Your task to perform on an android device: change text size in settings app Image 0: 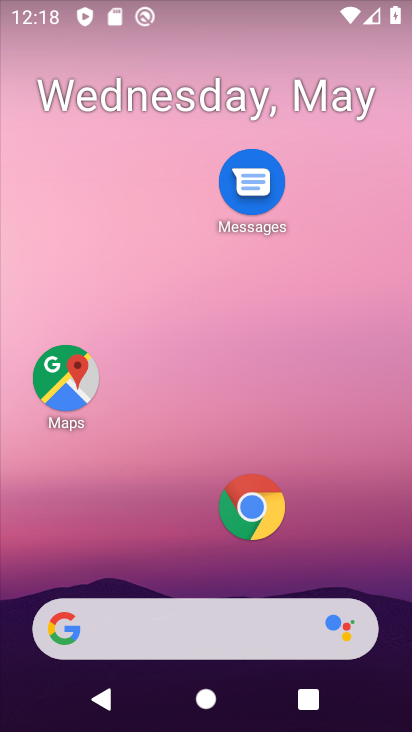
Step 0: drag from (143, 592) to (221, 101)
Your task to perform on an android device: change text size in settings app Image 1: 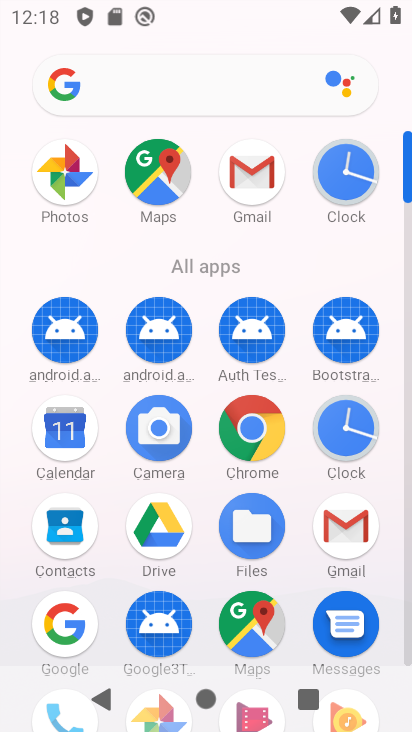
Step 1: drag from (169, 648) to (234, 373)
Your task to perform on an android device: change text size in settings app Image 2: 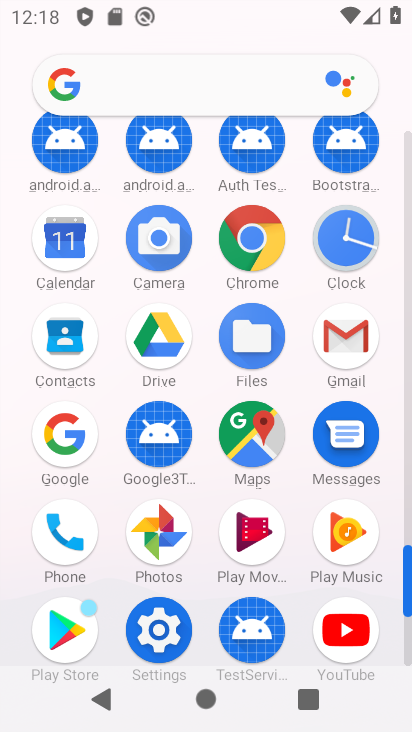
Step 2: click (168, 629)
Your task to perform on an android device: change text size in settings app Image 3: 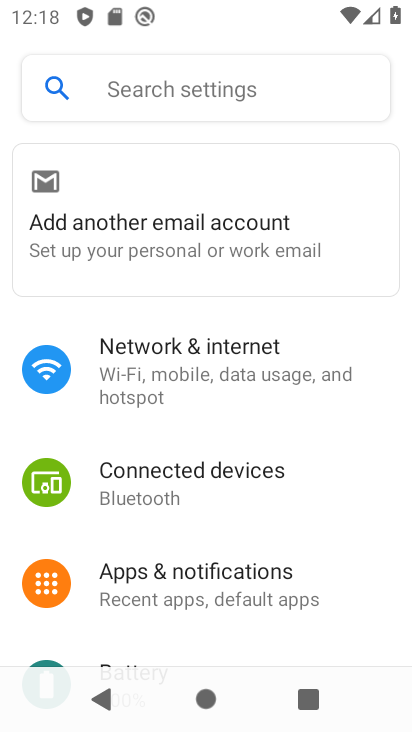
Step 3: drag from (189, 628) to (254, 354)
Your task to perform on an android device: change text size in settings app Image 4: 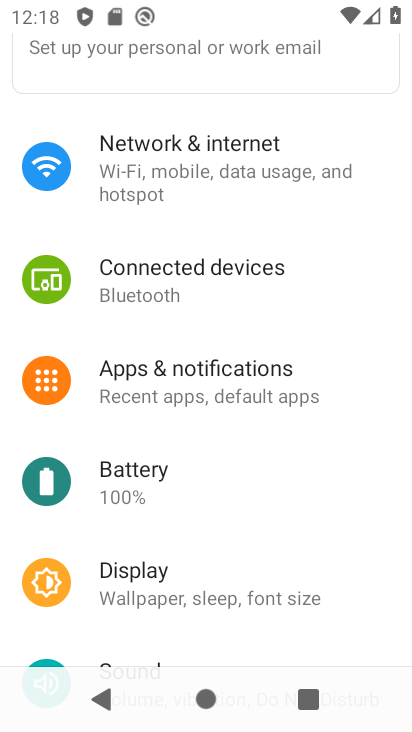
Step 4: click (165, 581)
Your task to perform on an android device: change text size in settings app Image 5: 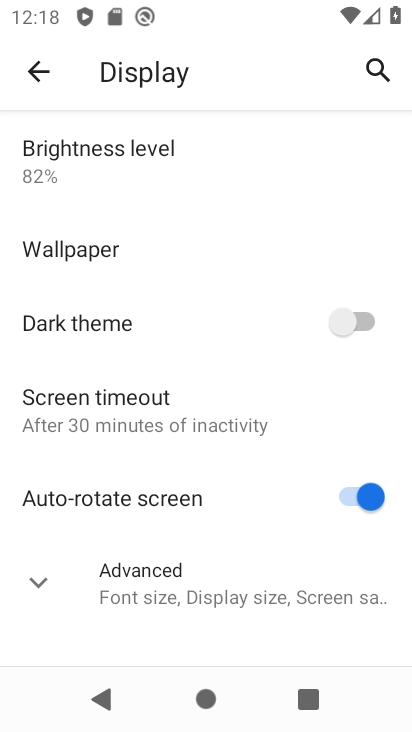
Step 5: click (166, 602)
Your task to perform on an android device: change text size in settings app Image 6: 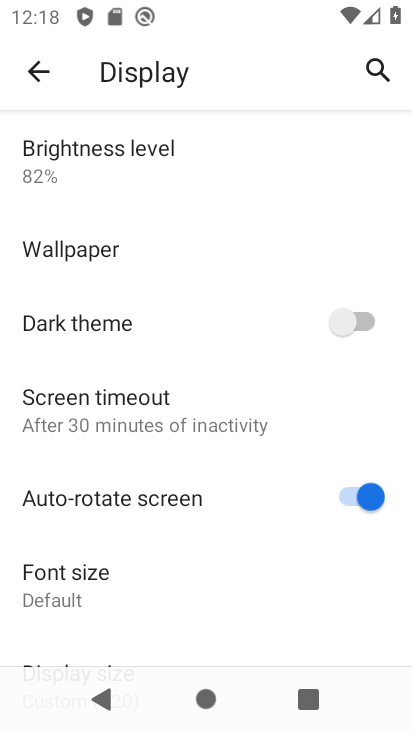
Step 6: click (157, 580)
Your task to perform on an android device: change text size in settings app Image 7: 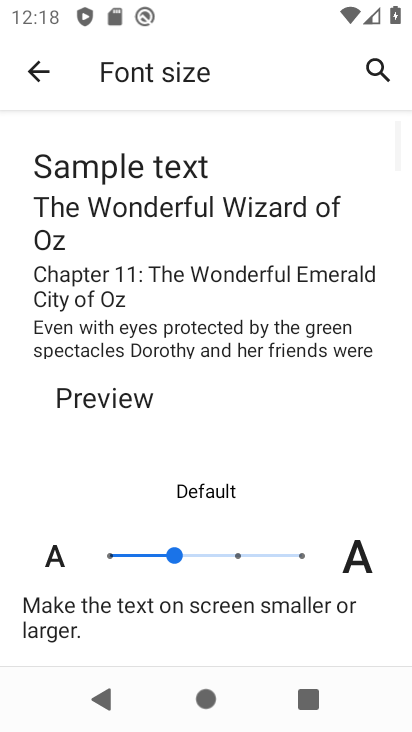
Step 7: task complete